Your task to perform on an android device: Open eBay Image 0: 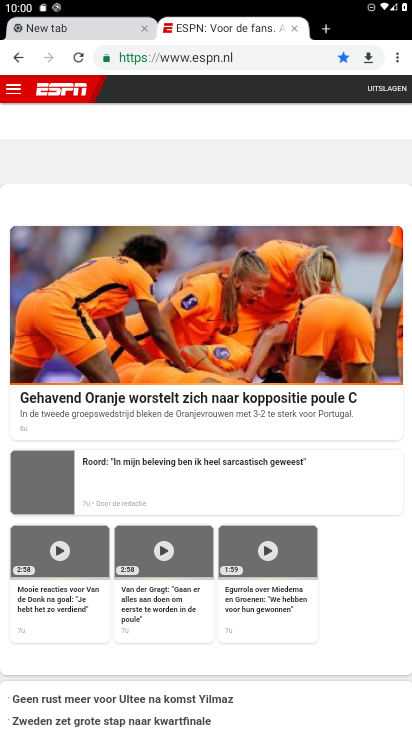
Step 0: click (237, 60)
Your task to perform on an android device: Open eBay Image 1: 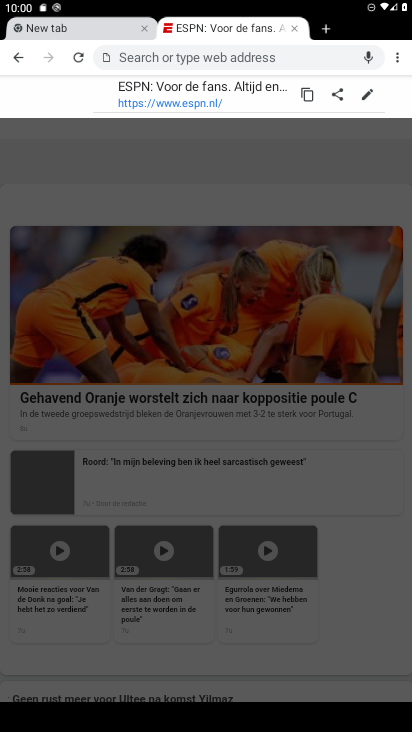
Step 1: type "ebay.com"
Your task to perform on an android device: Open eBay Image 2: 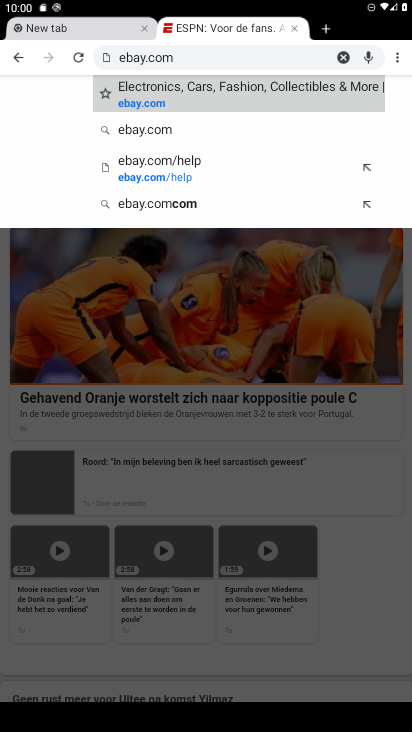
Step 2: click (181, 87)
Your task to perform on an android device: Open eBay Image 3: 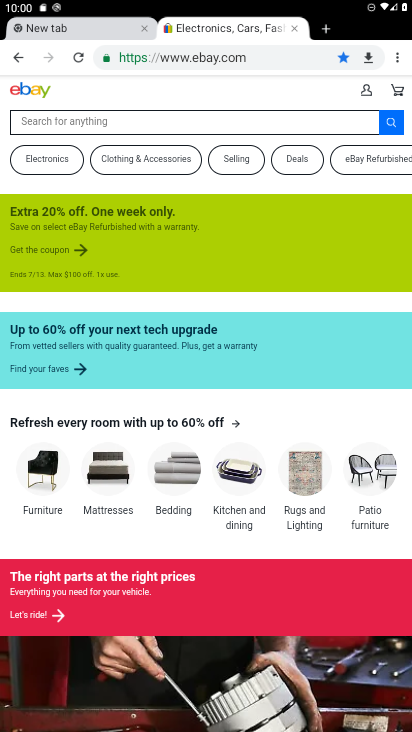
Step 3: task complete